Your task to perform on an android device: toggle improve location accuracy Image 0: 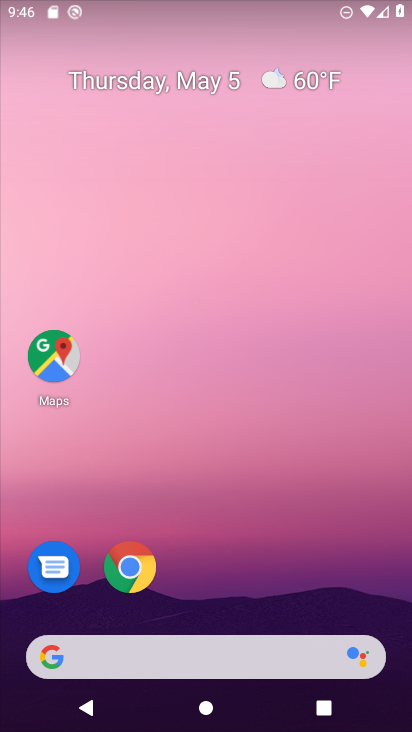
Step 0: drag from (204, 729) to (197, 166)
Your task to perform on an android device: toggle improve location accuracy Image 1: 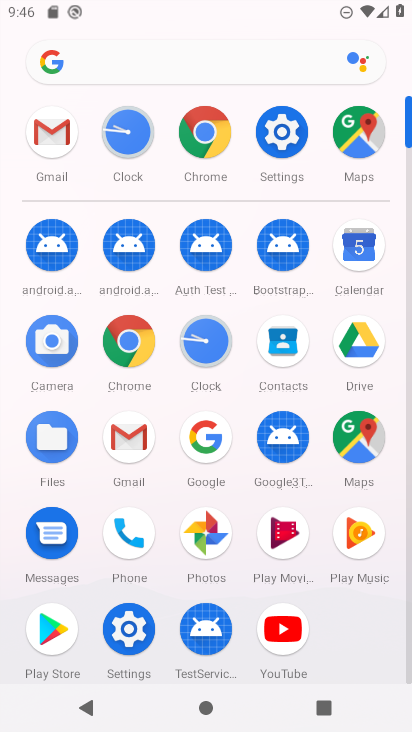
Step 1: click (274, 137)
Your task to perform on an android device: toggle improve location accuracy Image 2: 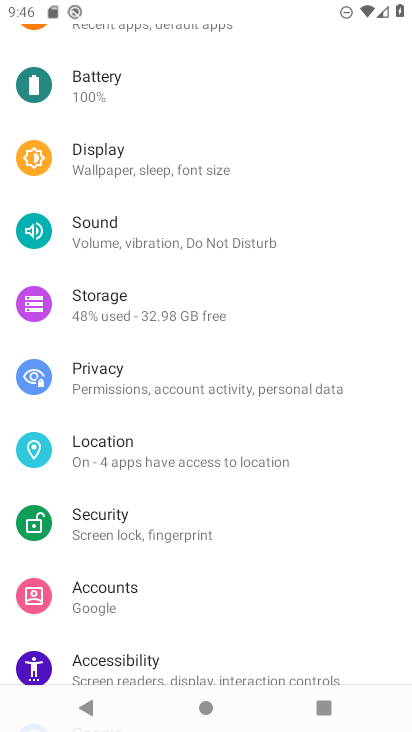
Step 2: click (107, 447)
Your task to perform on an android device: toggle improve location accuracy Image 3: 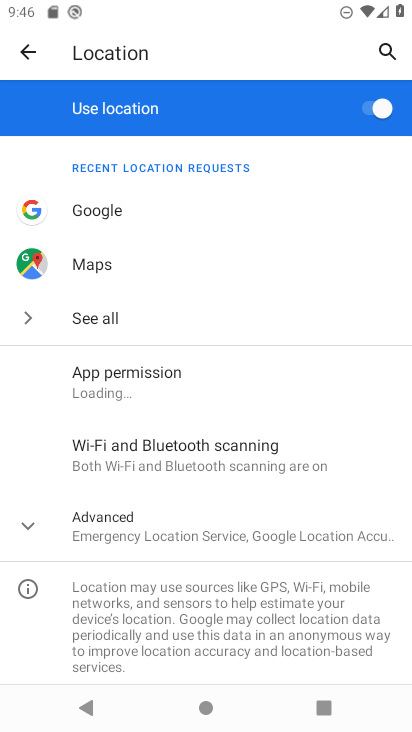
Step 3: click (101, 526)
Your task to perform on an android device: toggle improve location accuracy Image 4: 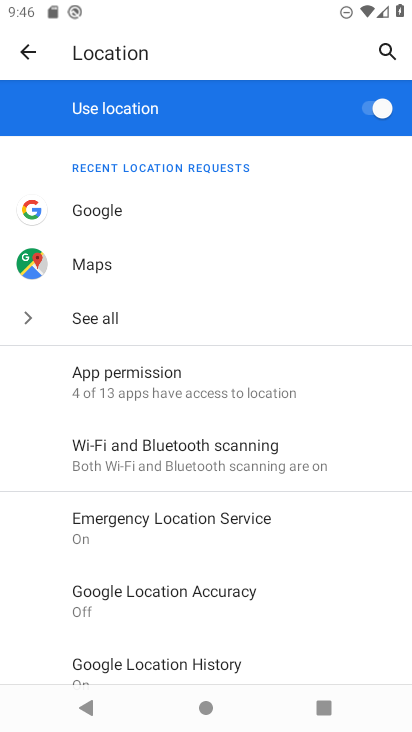
Step 4: click (106, 590)
Your task to perform on an android device: toggle improve location accuracy Image 5: 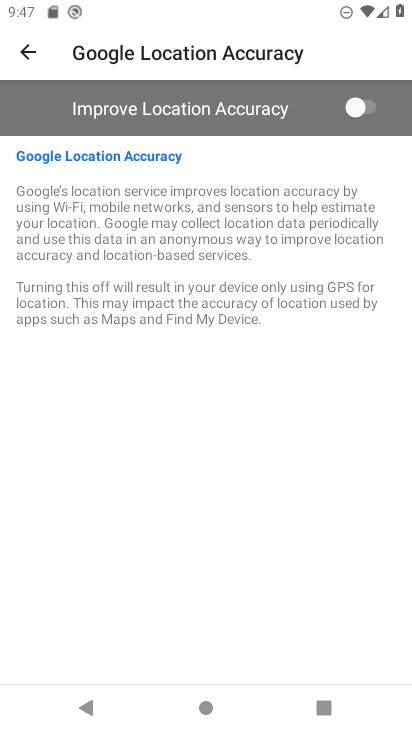
Step 5: click (368, 105)
Your task to perform on an android device: toggle improve location accuracy Image 6: 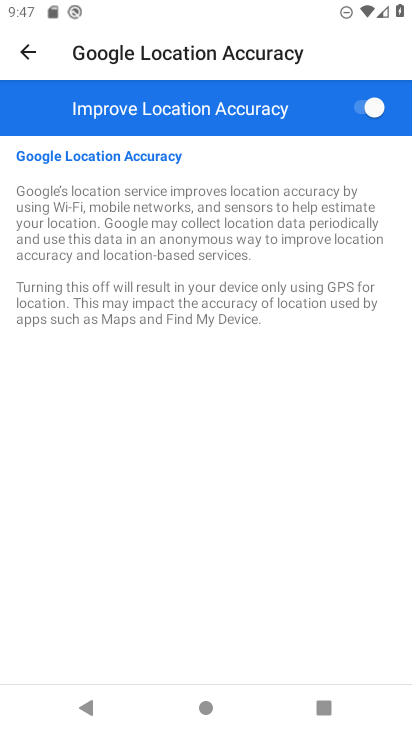
Step 6: task complete